Your task to perform on an android device: Open calendar and show me the fourth week of next month Image 0: 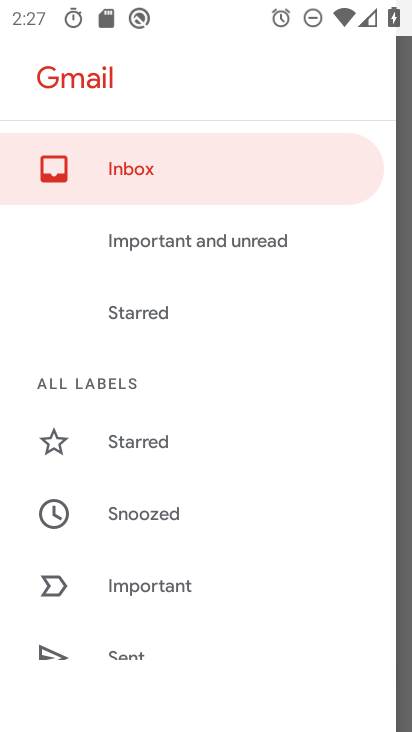
Step 0: press home button
Your task to perform on an android device: Open calendar and show me the fourth week of next month Image 1: 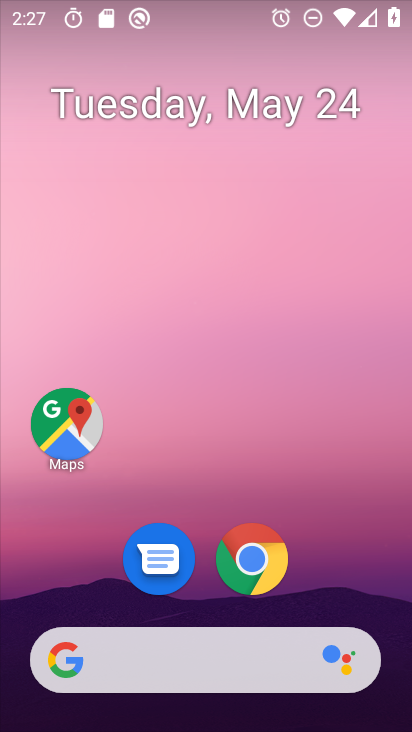
Step 1: drag from (392, 697) to (407, 207)
Your task to perform on an android device: Open calendar and show me the fourth week of next month Image 2: 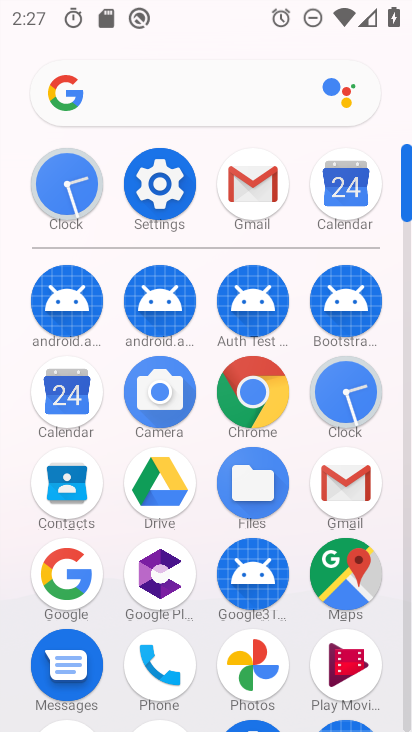
Step 2: click (77, 392)
Your task to perform on an android device: Open calendar and show me the fourth week of next month Image 3: 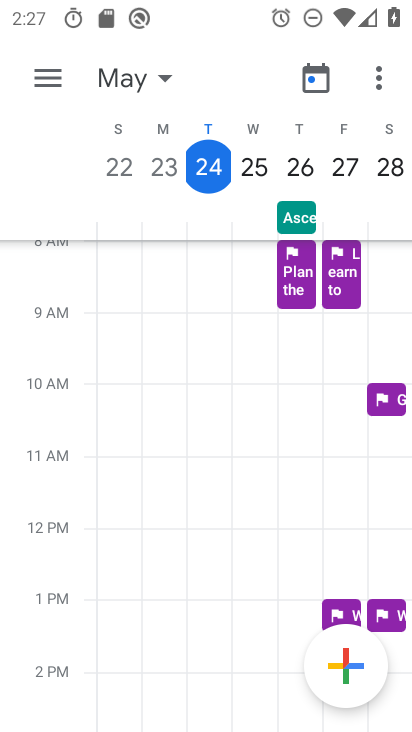
Step 3: click (158, 73)
Your task to perform on an android device: Open calendar and show me the fourth week of next month Image 4: 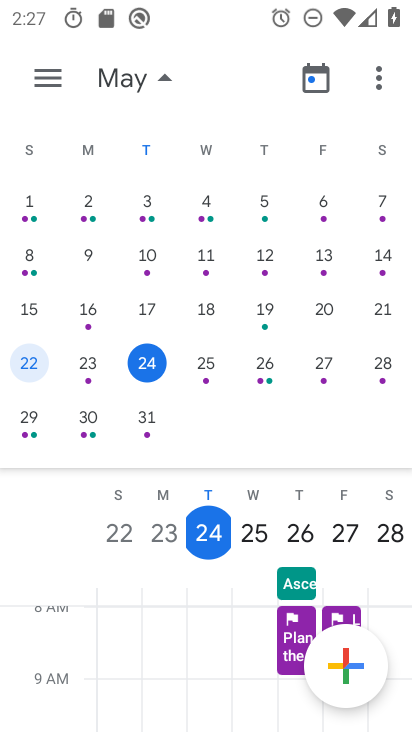
Step 4: drag from (405, 320) to (87, 299)
Your task to perform on an android device: Open calendar and show me the fourth week of next month Image 5: 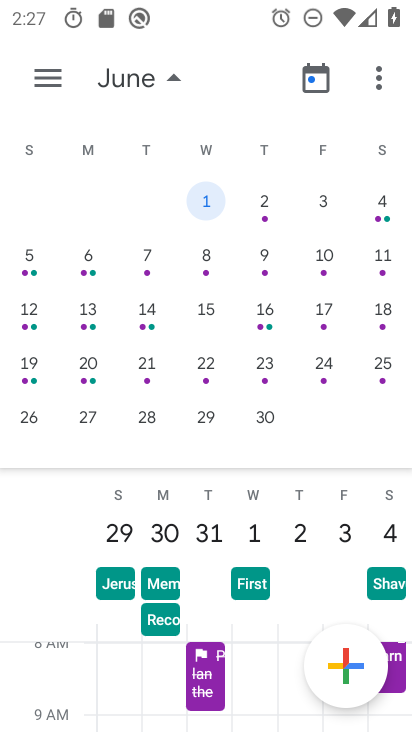
Step 5: click (205, 363)
Your task to perform on an android device: Open calendar and show me the fourth week of next month Image 6: 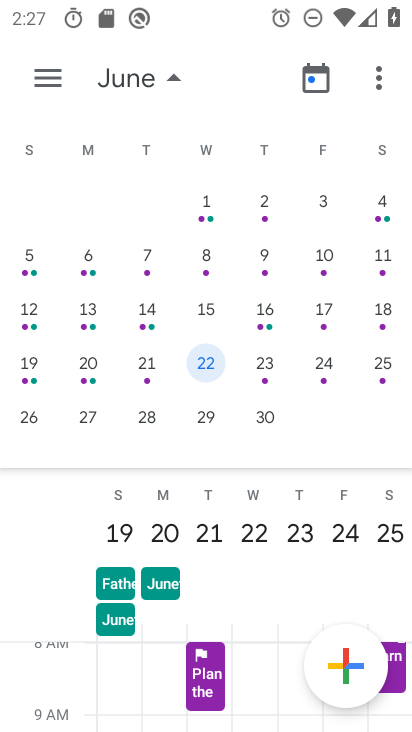
Step 6: task complete